Your task to perform on an android device: Search for seafood restaurants on Google Maps Image 0: 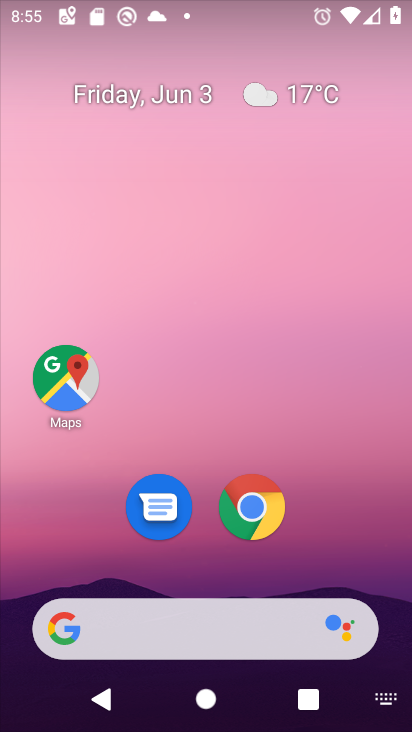
Step 0: click (71, 398)
Your task to perform on an android device: Search for seafood restaurants on Google Maps Image 1: 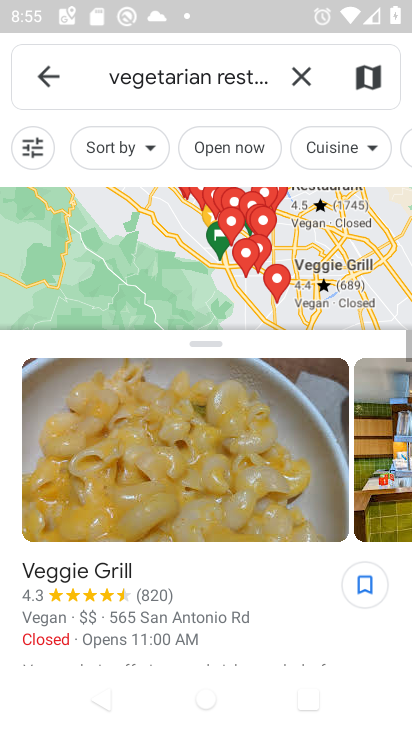
Step 1: click (286, 78)
Your task to perform on an android device: Search for seafood restaurants on Google Maps Image 2: 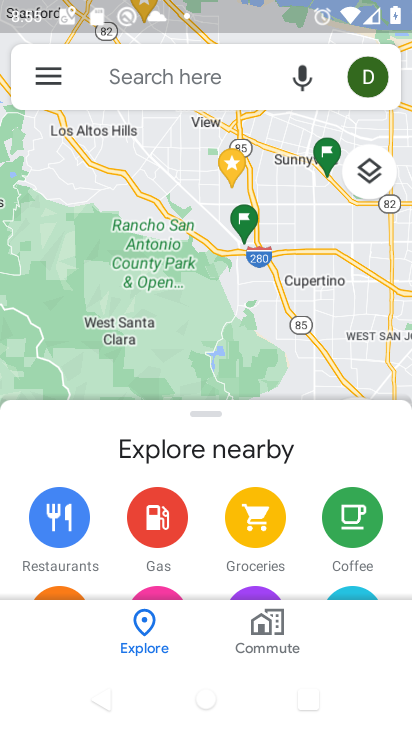
Step 2: click (180, 64)
Your task to perform on an android device: Search for seafood restaurants on Google Maps Image 3: 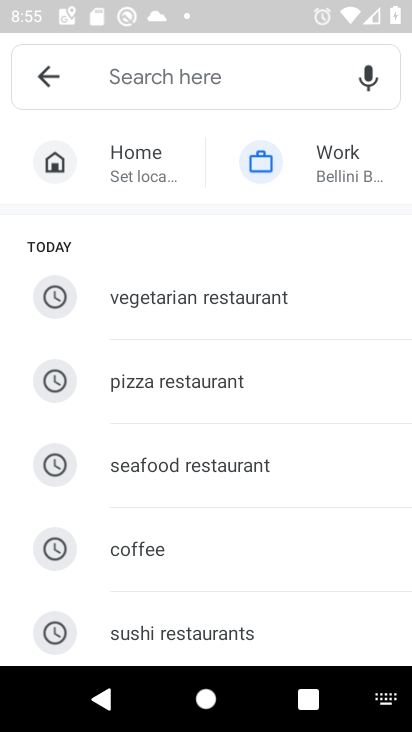
Step 3: click (235, 467)
Your task to perform on an android device: Search for seafood restaurants on Google Maps Image 4: 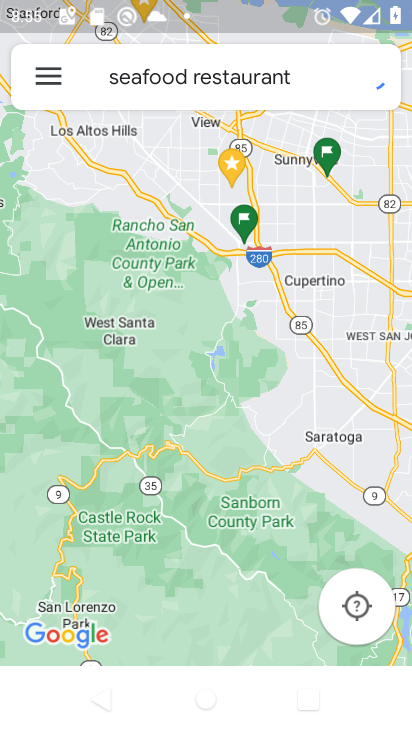
Step 4: task complete